Your task to perform on an android device: remove spam from my inbox in the gmail app Image 0: 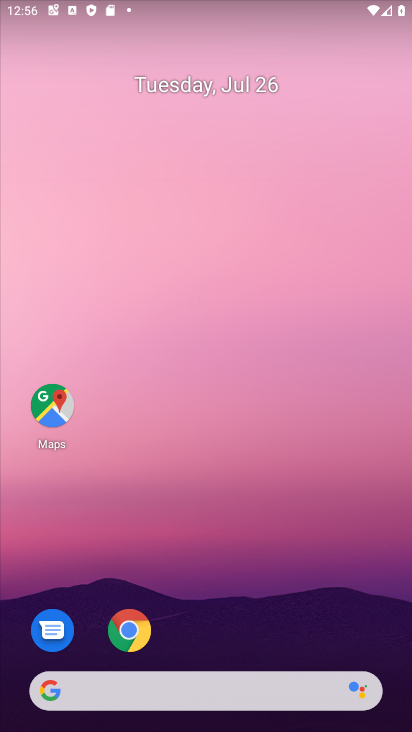
Step 0: drag from (390, 653) to (367, 206)
Your task to perform on an android device: remove spam from my inbox in the gmail app Image 1: 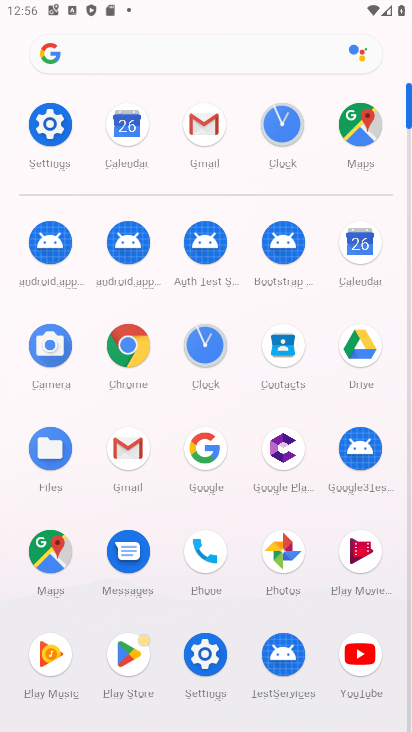
Step 1: click (130, 450)
Your task to perform on an android device: remove spam from my inbox in the gmail app Image 2: 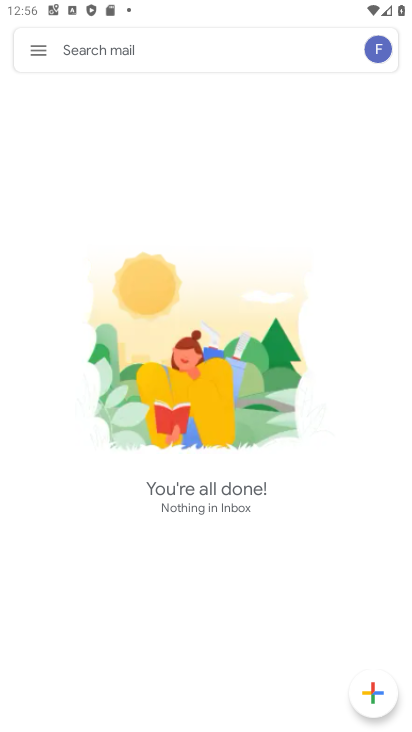
Step 2: click (39, 51)
Your task to perform on an android device: remove spam from my inbox in the gmail app Image 3: 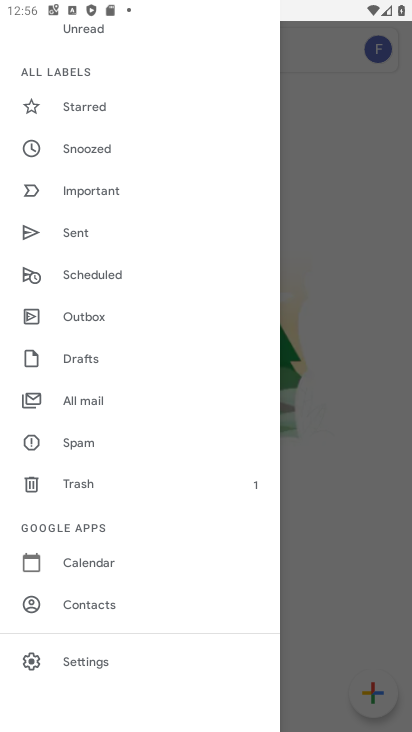
Step 3: click (78, 446)
Your task to perform on an android device: remove spam from my inbox in the gmail app Image 4: 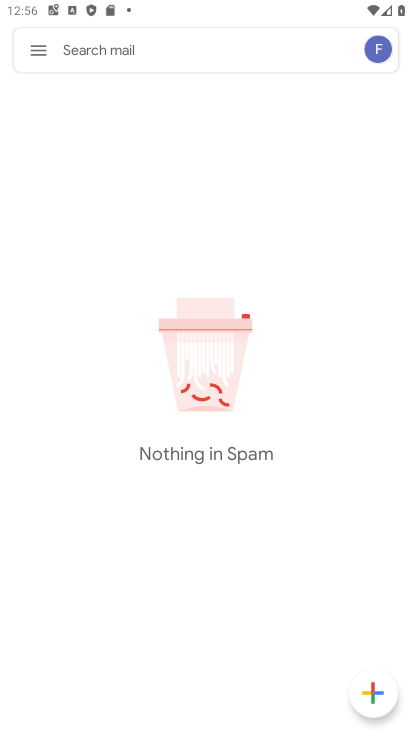
Step 4: task complete